Your task to perform on an android device: check battery use Image 0: 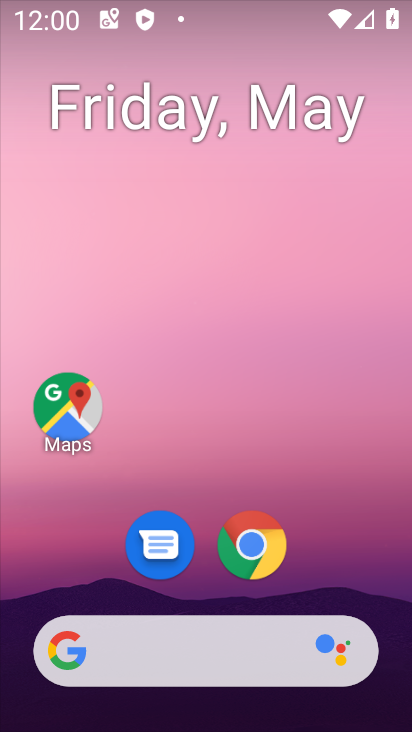
Step 0: drag from (320, 563) to (333, 179)
Your task to perform on an android device: check battery use Image 1: 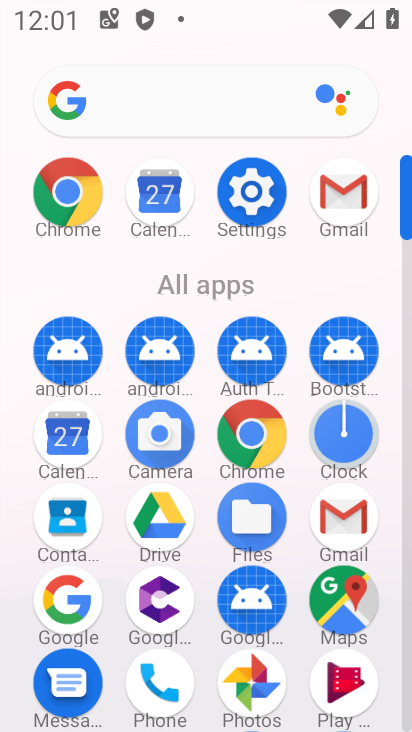
Step 1: click (254, 202)
Your task to perform on an android device: check battery use Image 2: 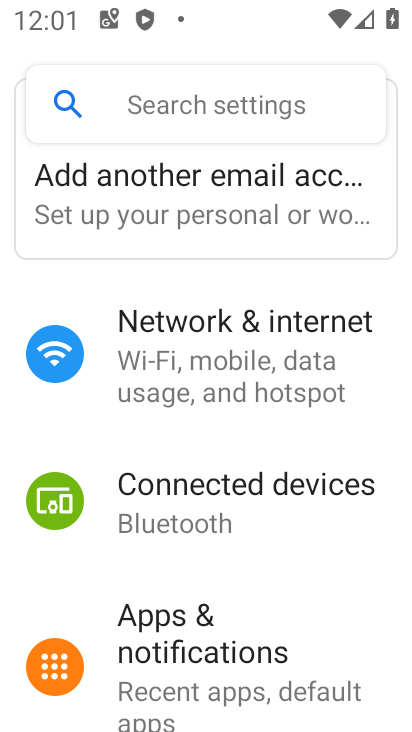
Step 2: drag from (229, 609) to (262, 262)
Your task to perform on an android device: check battery use Image 3: 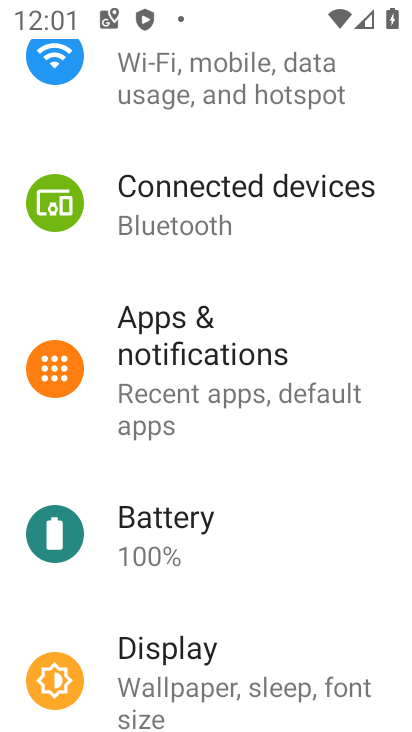
Step 3: click (182, 525)
Your task to perform on an android device: check battery use Image 4: 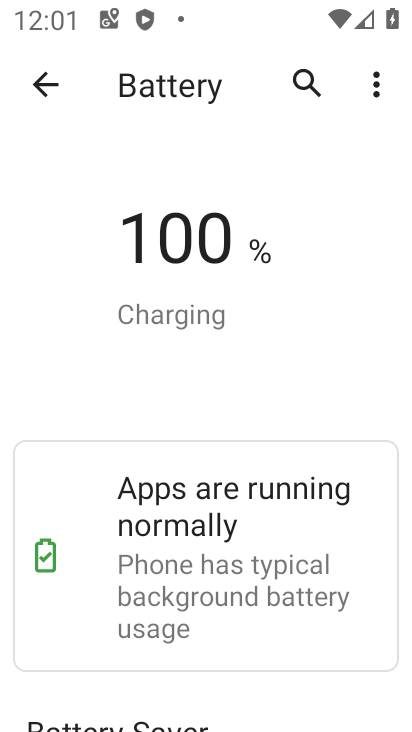
Step 4: task complete